Your task to perform on an android device: Go to eBay Image 0: 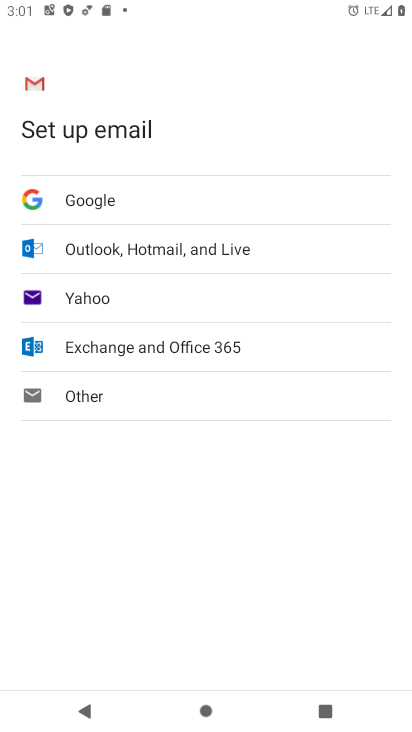
Step 0: press back button
Your task to perform on an android device: Go to eBay Image 1: 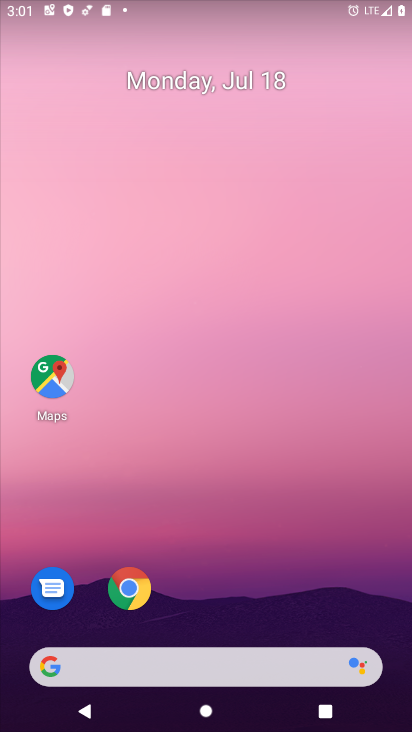
Step 1: click (137, 598)
Your task to perform on an android device: Go to eBay Image 2: 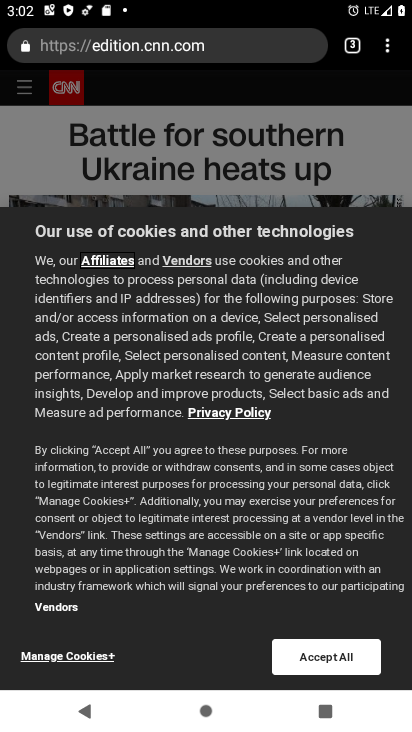
Step 2: click (348, 43)
Your task to perform on an android device: Go to eBay Image 3: 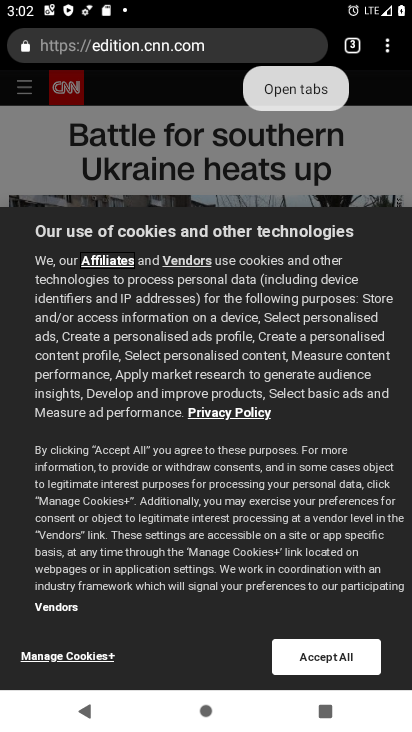
Step 3: click (358, 37)
Your task to perform on an android device: Go to eBay Image 4: 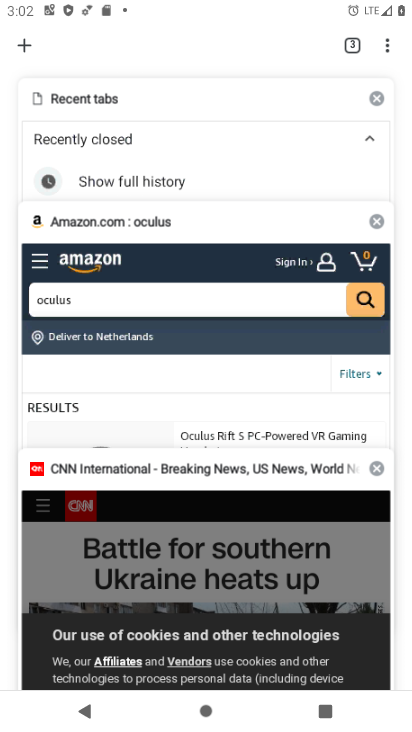
Step 4: click (26, 45)
Your task to perform on an android device: Go to eBay Image 5: 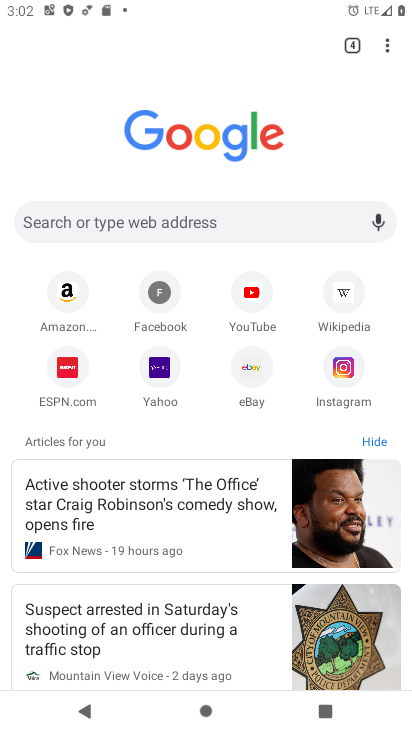
Step 5: click (259, 392)
Your task to perform on an android device: Go to eBay Image 6: 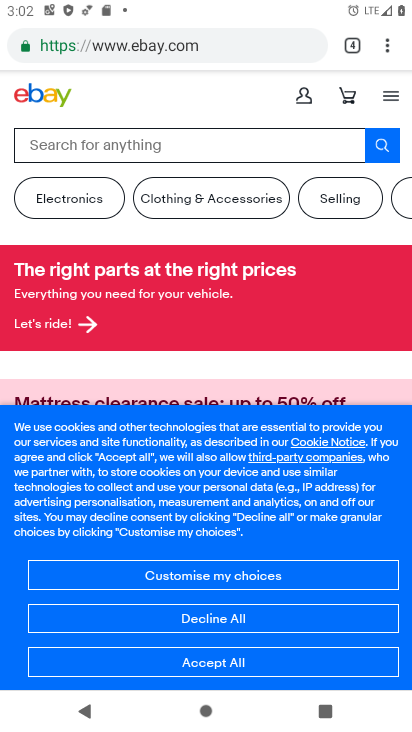
Step 6: task complete